Your task to perform on an android device: clear all cookies in the chrome app Image 0: 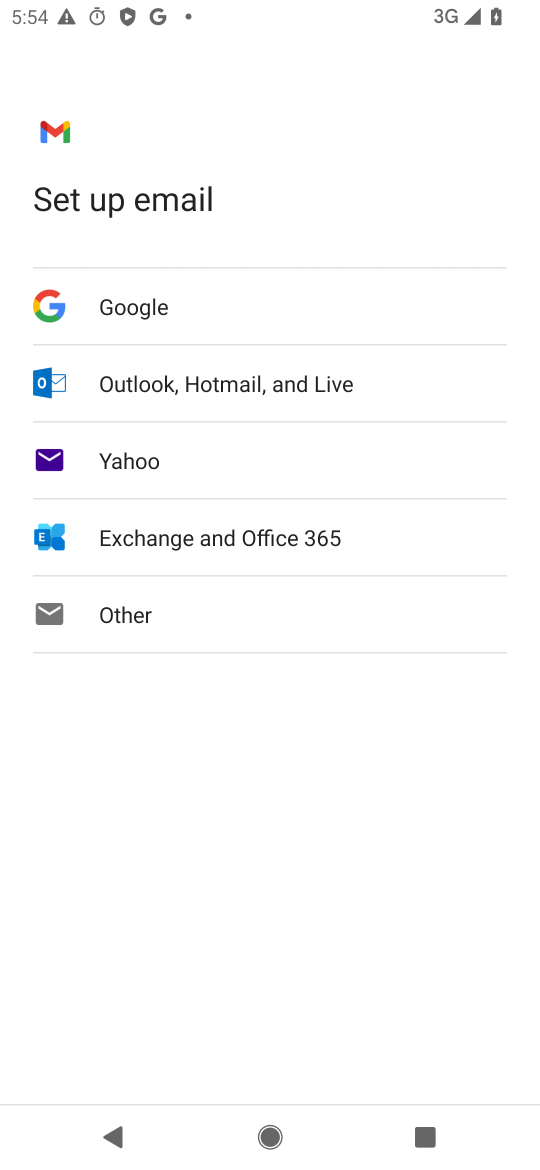
Step 0: press home button
Your task to perform on an android device: clear all cookies in the chrome app Image 1: 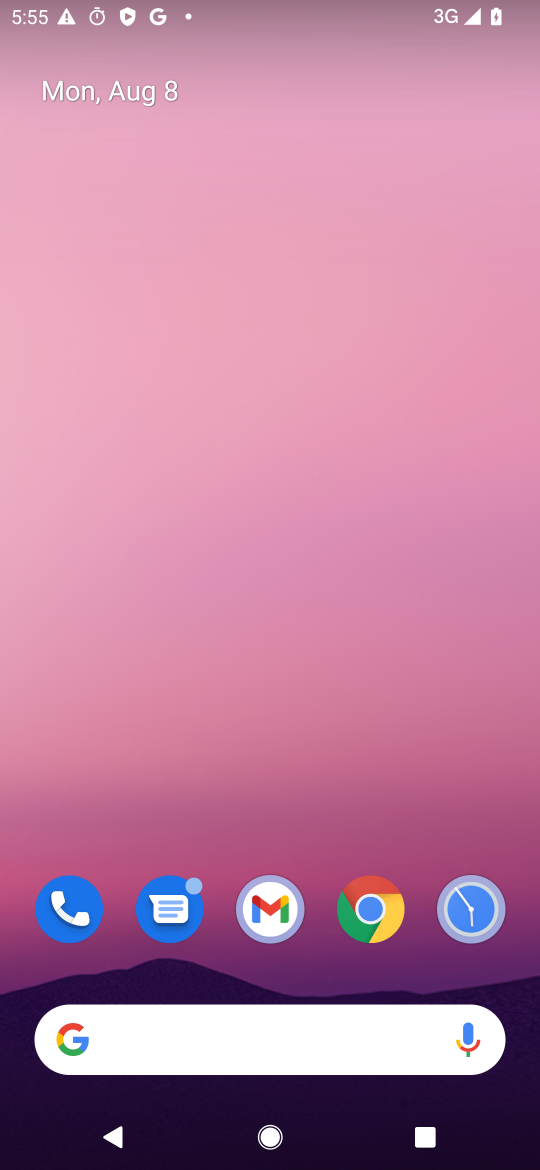
Step 1: click (371, 904)
Your task to perform on an android device: clear all cookies in the chrome app Image 2: 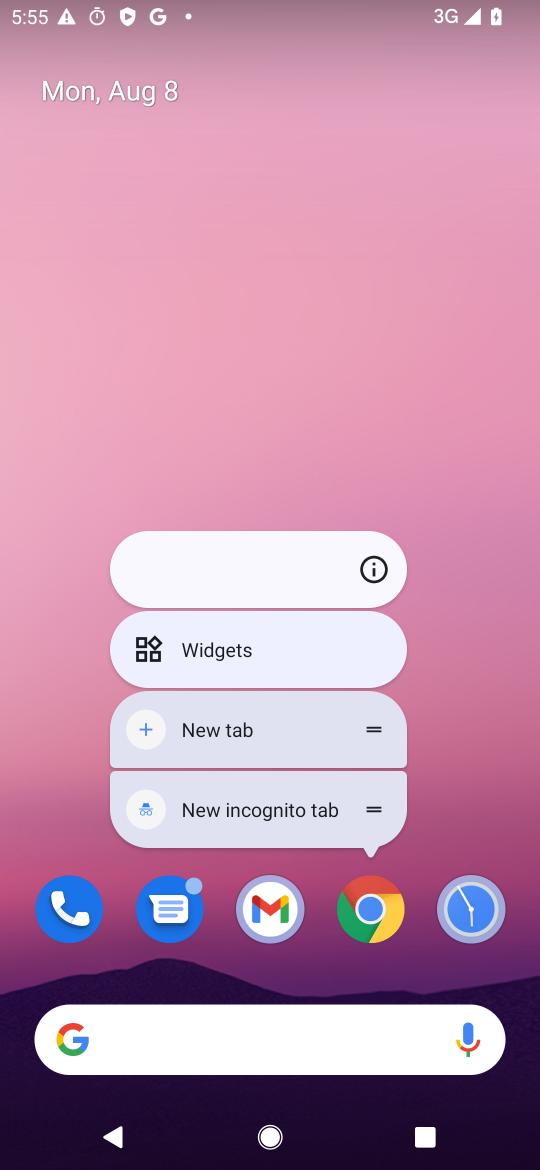
Step 2: click (371, 904)
Your task to perform on an android device: clear all cookies in the chrome app Image 3: 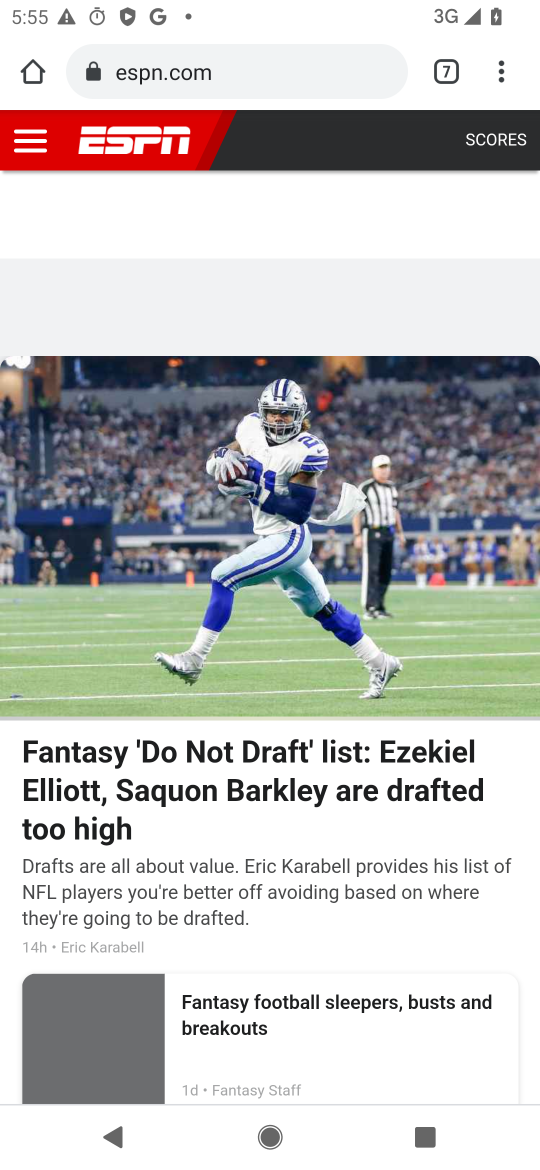
Step 3: drag from (505, 65) to (319, 1004)
Your task to perform on an android device: clear all cookies in the chrome app Image 4: 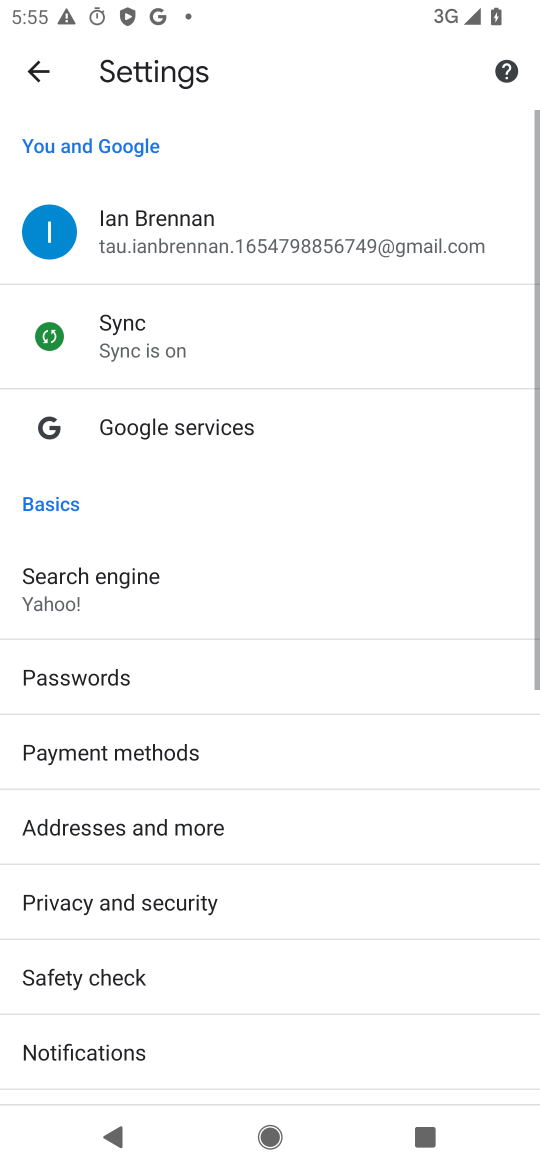
Step 4: drag from (233, 934) to (492, 304)
Your task to perform on an android device: clear all cookies in the chrome app Image 5: 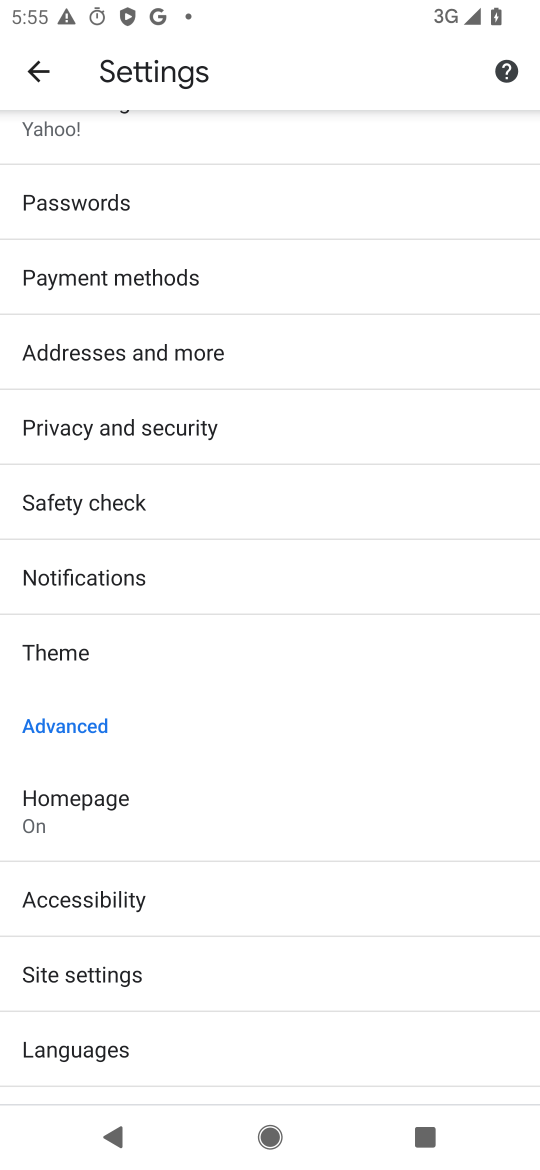
Step 5: drag from (441, 408) to (398, 705)
Your task to perform on an android device: clear all cookies in the chrome app Image 6: 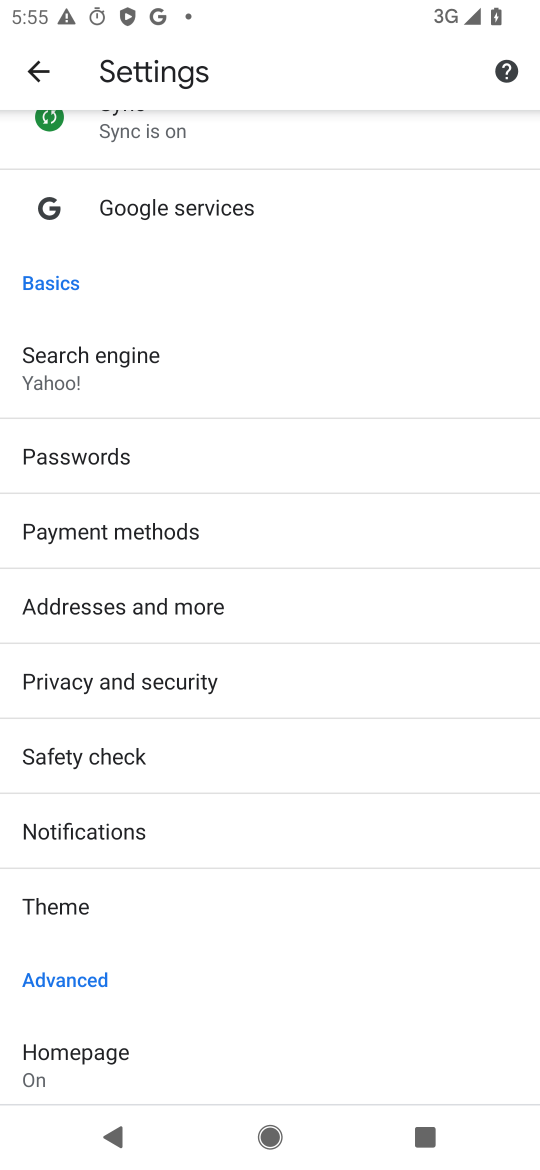
Step 6: click (164, 666)
Your task to perform on an android device: clear all cookies in the chrome app Image 7: 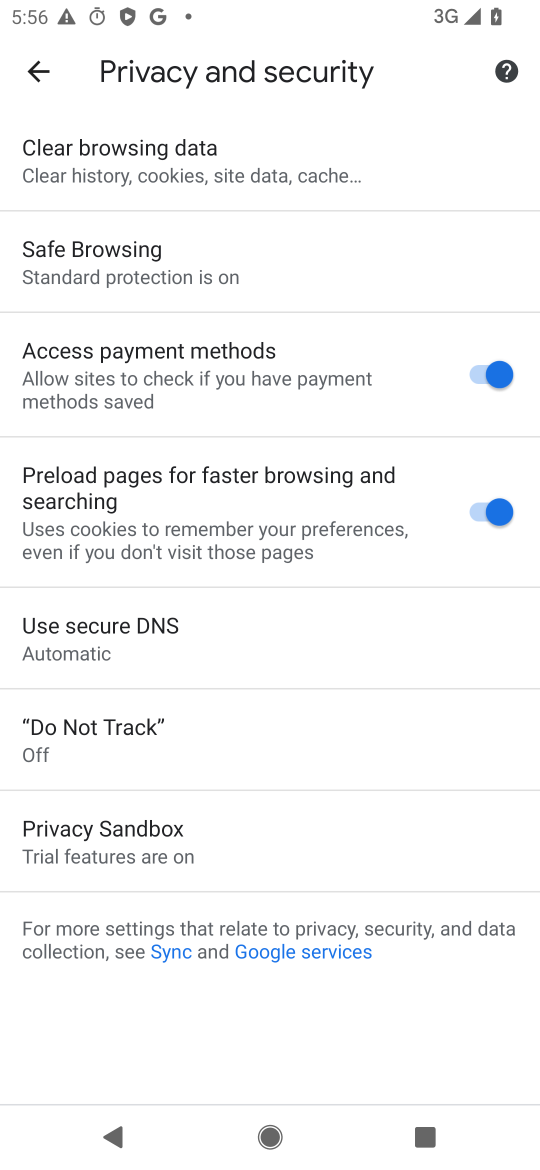
Step 7: click (279, 164)
Your task to perform on an android device: clear all cookies in the chrome app Image 8: 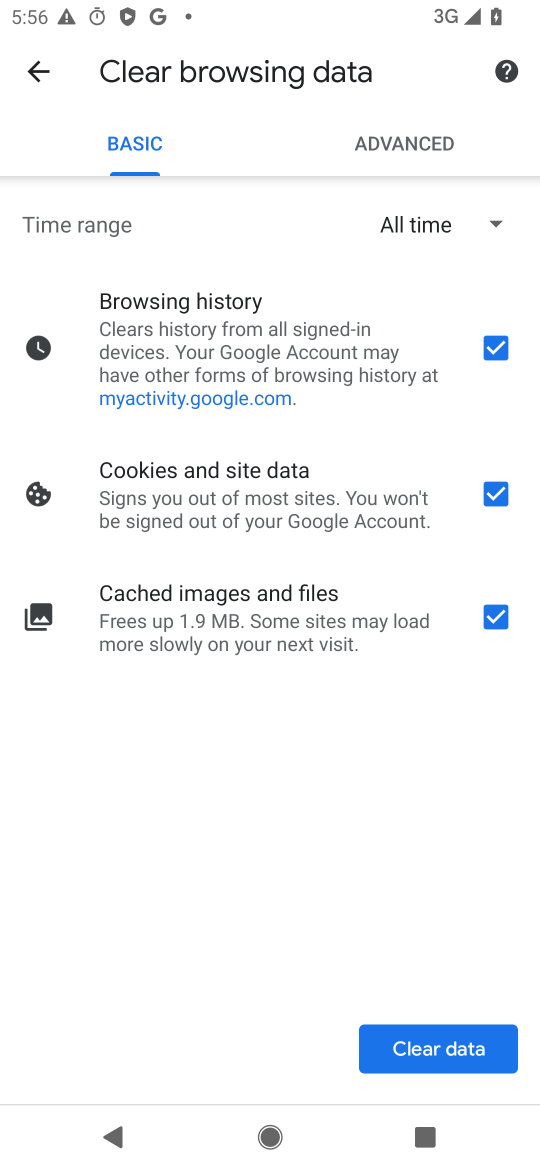
Step 8: click (494, 343)
Your task to perform on an android device: clear all cookies in the chrome app Image 9: 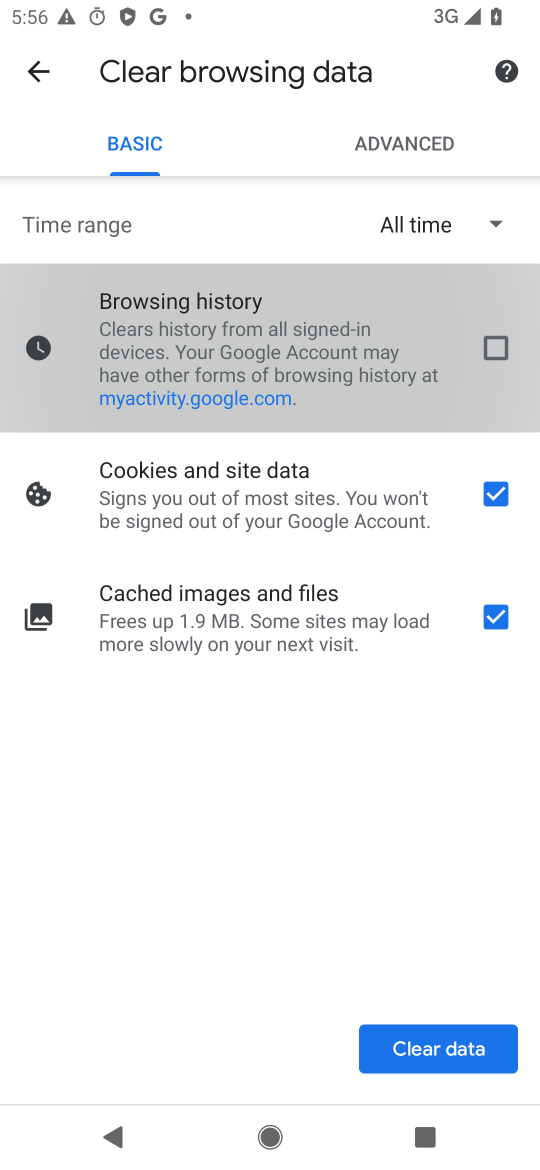
Step 9: click (499, 615)
Your task to perform on an android device: clear all cookies in the chrome app Image 10: 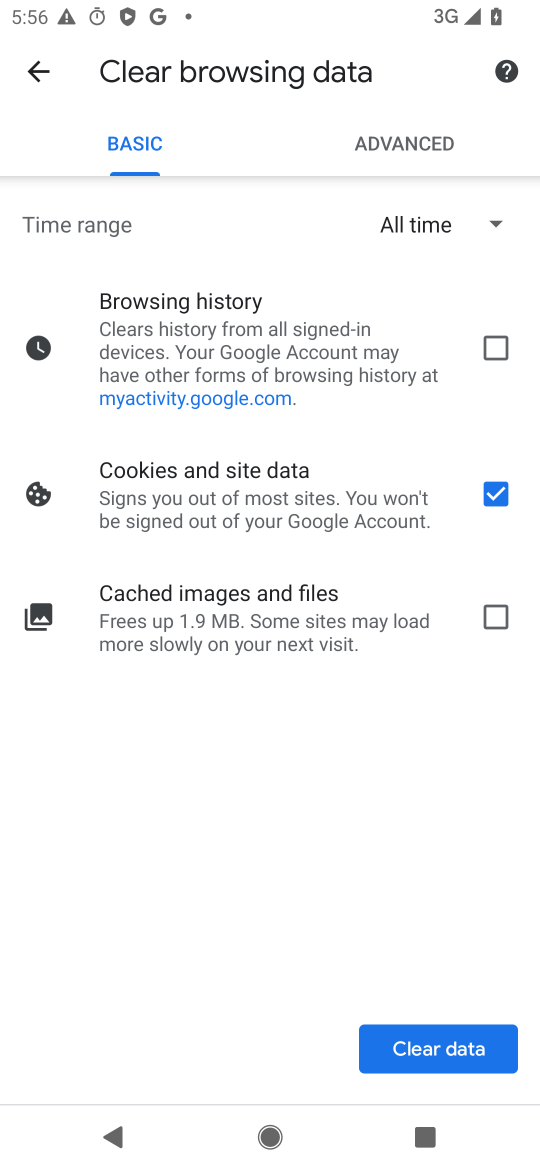
Step 10: click (433, 1054)
Your task to perform on an android device: clear all cookies in the chrome app Image 11: 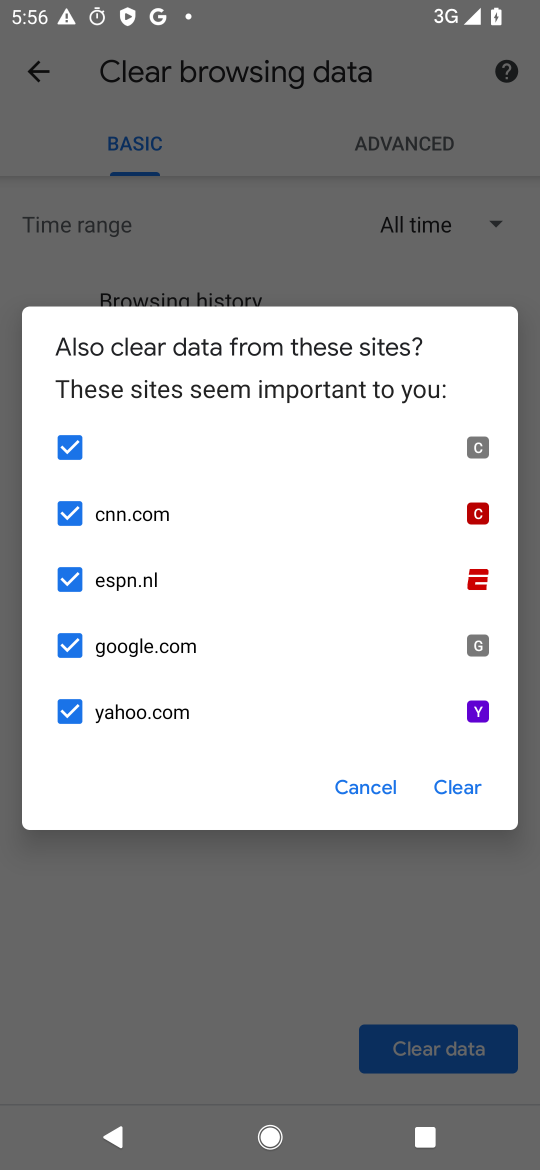
Step 11: click (447, 790)
Your task to perform on an android device: clear all cookies in the chrome app Image 12: 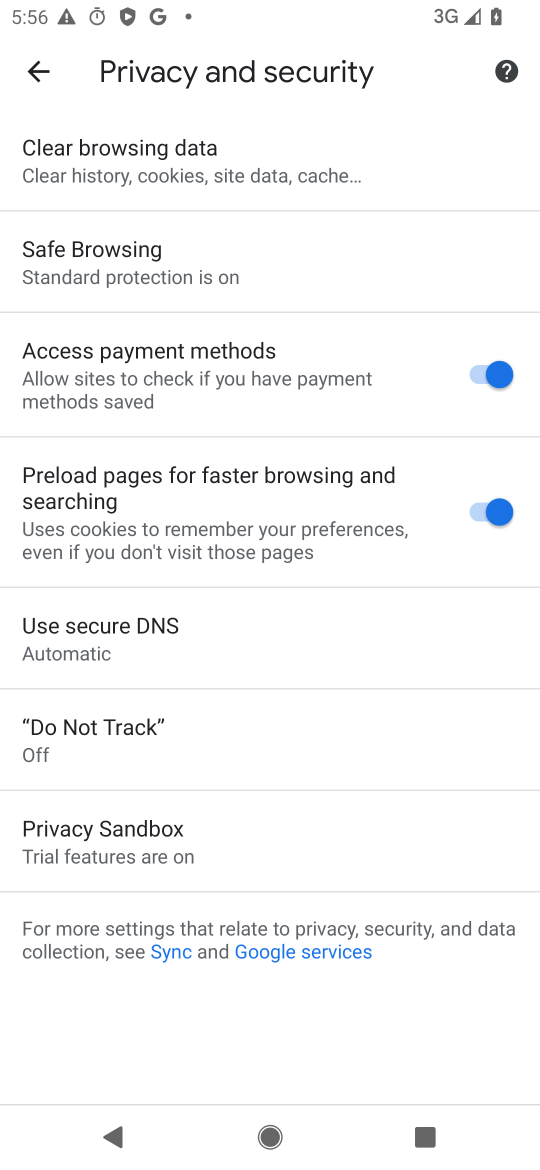
Step 12: task complete